Your task to perform on an android device: Go to Amazon Image 0: 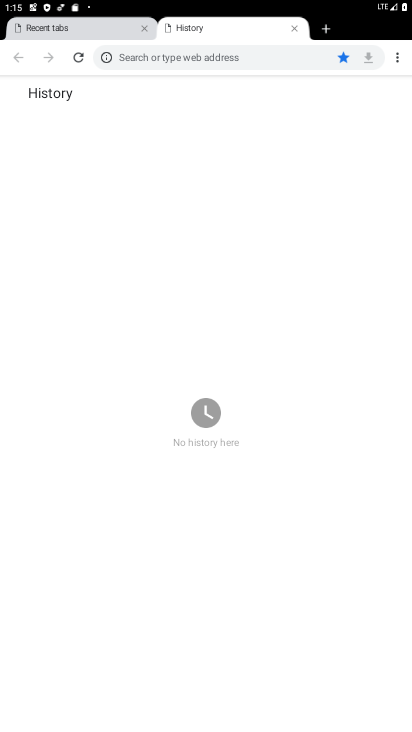
Step 0: click (398, 62)
Your task to perform on an android device: Go to Amazon Image 1: 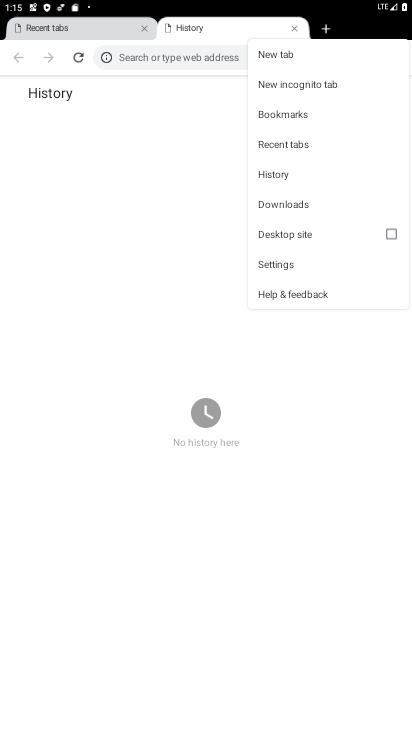
Step 1: click (281, 55)
Your task to perform on an android device: Go to Amazon Image 2: 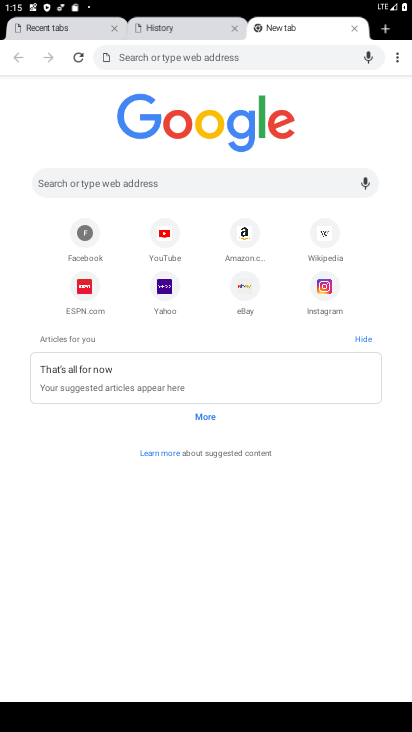
Step 2: click (244, 230)
Your task to perform on an android device: Go to Amazon Image 3: 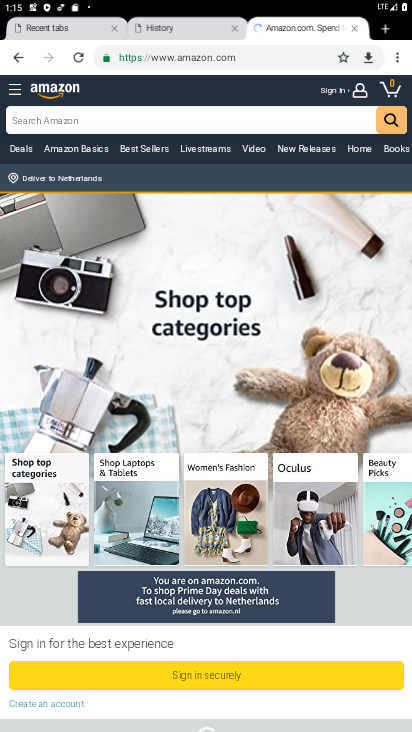
Step 3: task complete